Your task to perform on an android device: Go to accessibility settings Image 0: 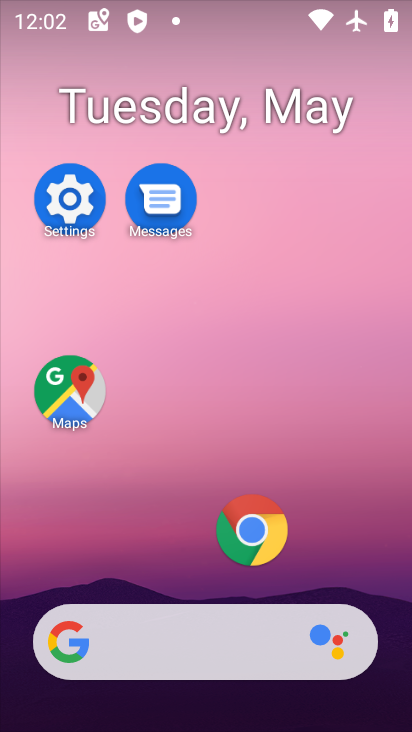
Step 0: drag from (178, 556) to (258, 109)
Your task to perform on an android device: Go to accessibility settings Image 1: 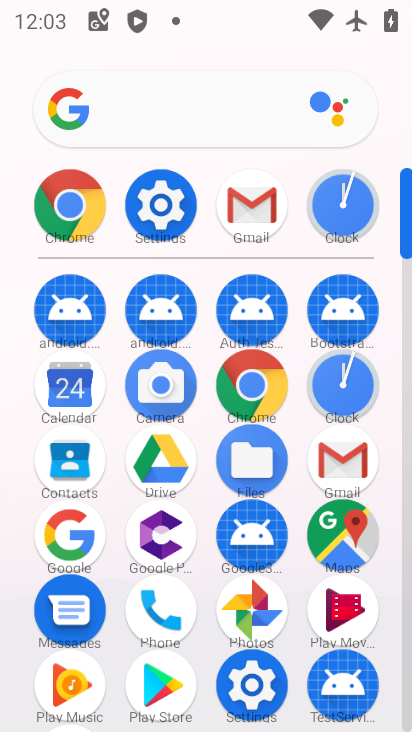
Step 1: click (266, 690)
Your task to perform on an android device: Go to accessibility settings Image 2: 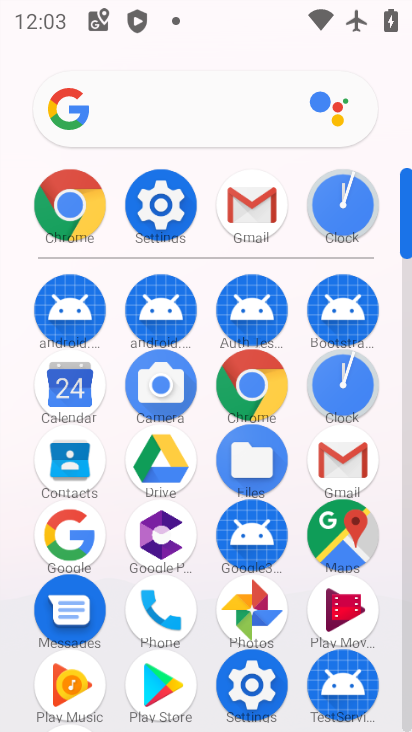
Step 2: click (253, 686)
Your task to perform on an android device: Go to accessibility settings Image 3: 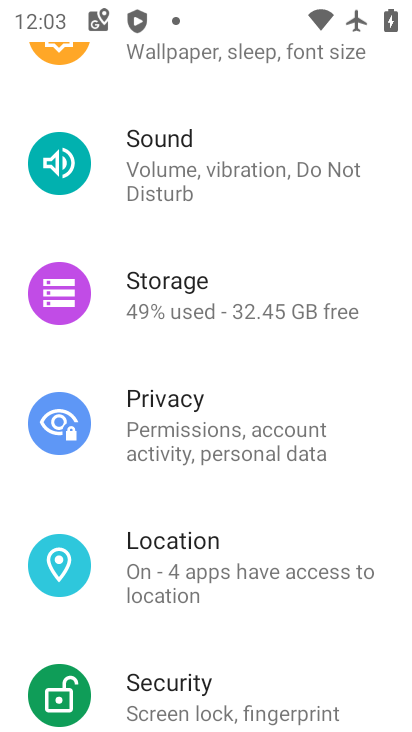
Step 3: click (6, 593)
Your task to perform on an android device: Go to accessibility settings Image 4: 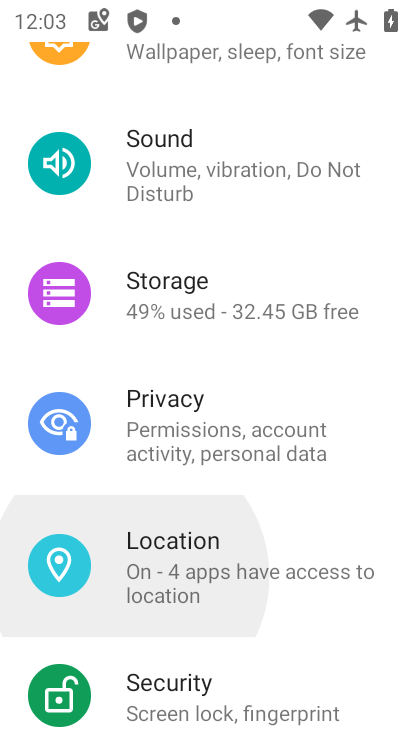
Step 4: drag from (218, 619) to (338, 94)
Your task to perform on an android device: Go to accessibility settings Image 5: 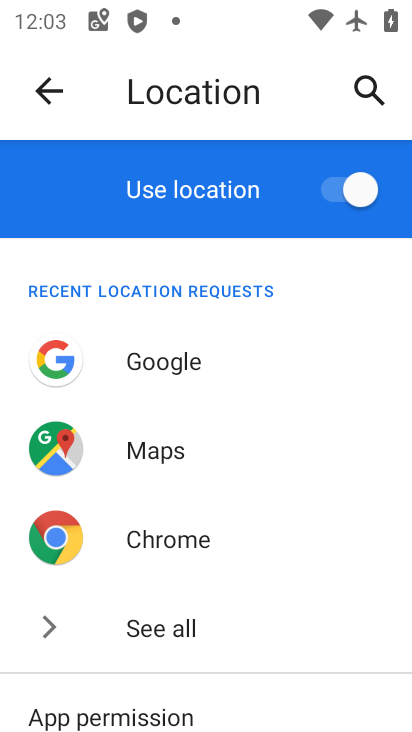
Step 5: press back button
Your task to perform on an android device: Go to accessibility settings Image 6: 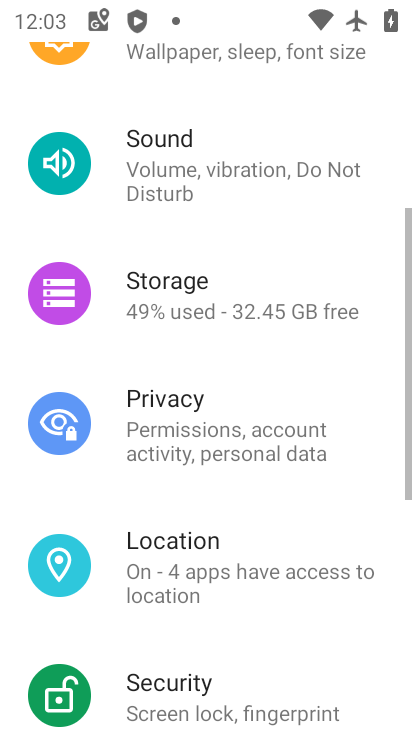
Step 6: drag from (187, 588) to (243, 127)
Your task to perform on an android device: Go to accessibility settings Image 7: 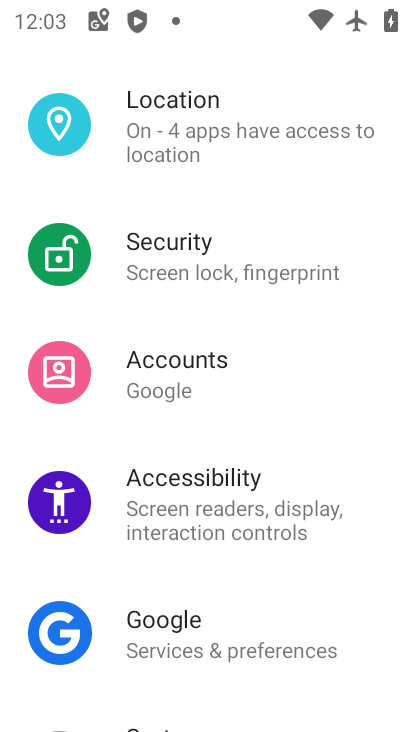
Step 7: click (227, 499)
Your task to perform on an android device: Go to accessibility settings Image 8: 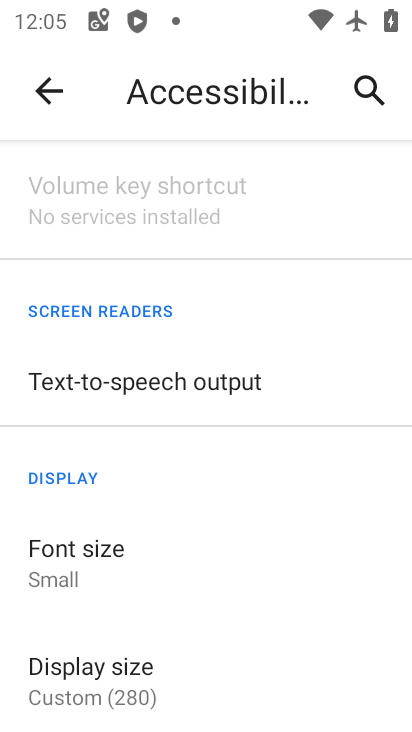
Step 8: task complete